Your task to perform on an android device: turn off location history Image 0: 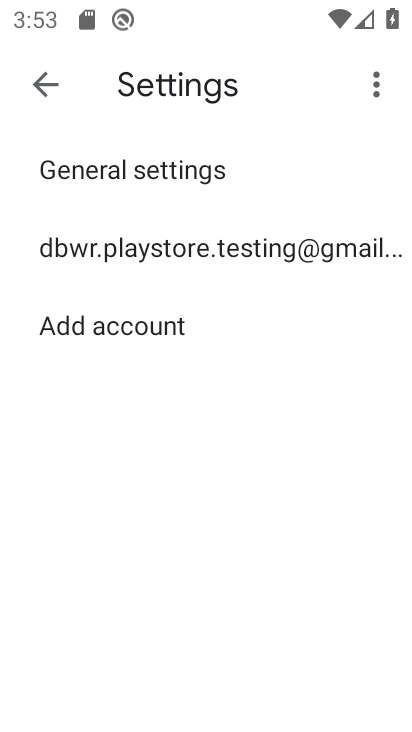
Step 0: press home button
Your task to perform on an android device: turn off location history Image 1: 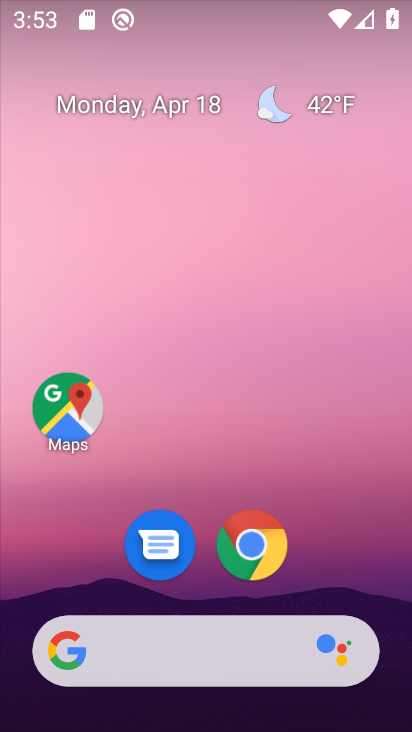
Step 1: drag from (310, 559) to (304, 144)
Your task to perform on an android device: turn off location history Image 2: 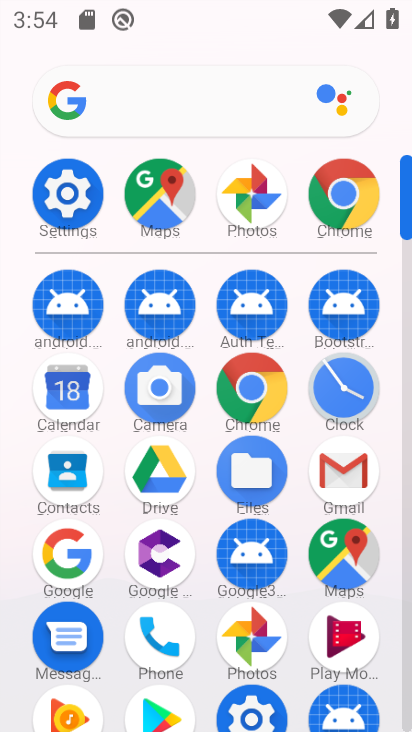
Step 2: click (64, 202)
Your task to perform on an android device: turn off location history Image 3: 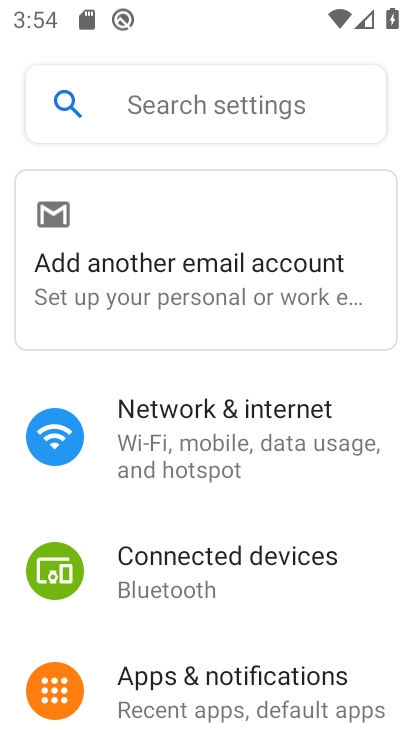
Step 3: drag from (374, 596) to (382, 380)
Your task to perform on an android device: turn off location history Image 4: 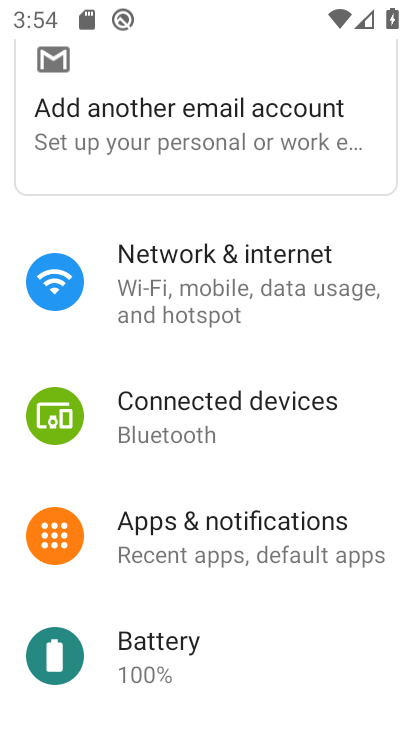
Step 4: drag from (360, 632) to (362, 388)
Your task to perform on an android device: turn off location history Image 5: 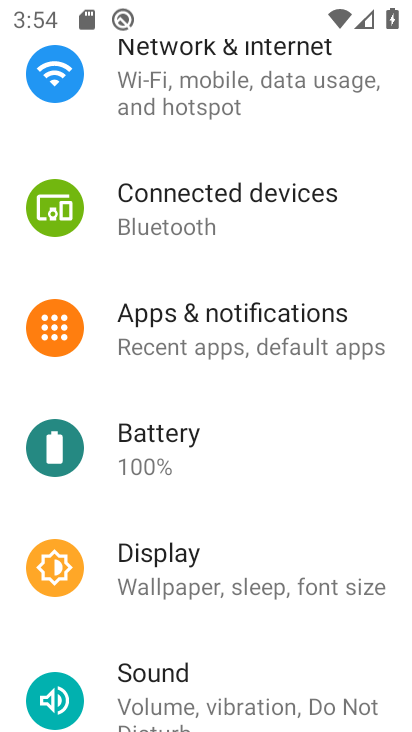
Step 5: drag from (364, 497) to (356, 320)
Your task to perform on an android device: turn off location history Image 6: 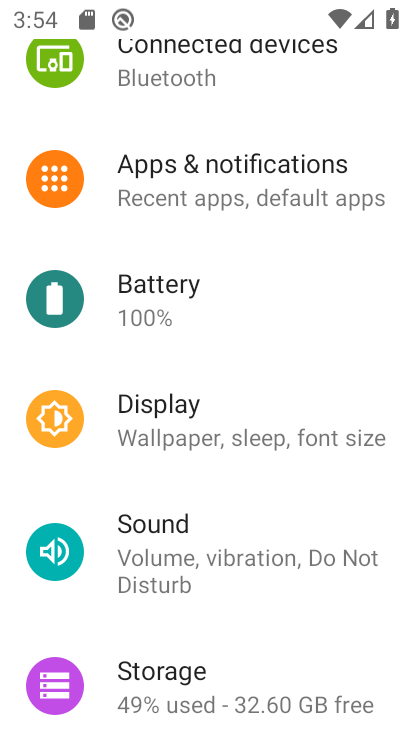
Step 6: drag from (369, 597) to (343, 349)
Your task to perform on an android device: turn off location history Image 7: 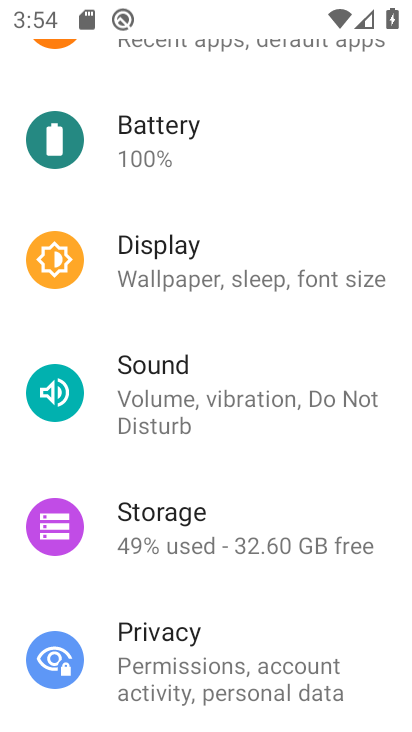
Step 7: drag from (372, 630) to (371, 431)
Your task to perform on an android device: turn off location history Image 8: 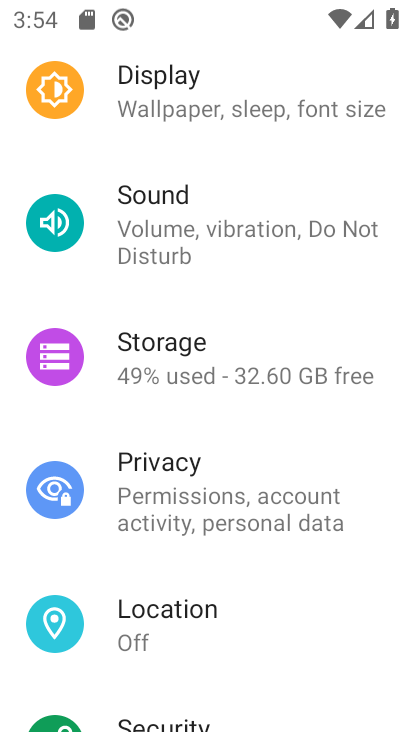
Step 8: drag from (363, 614) to (386, 434)
Your task to perform on an android device: turn off location history Image 9: 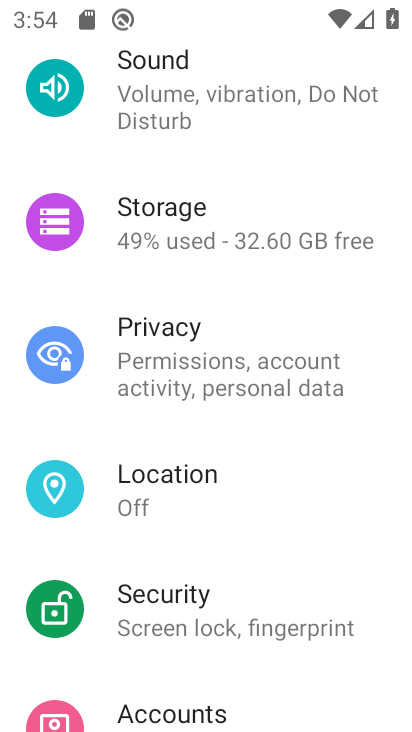
Step 9: click (180, 475)
Your task to perform on an android device: turn off location history Image 10: 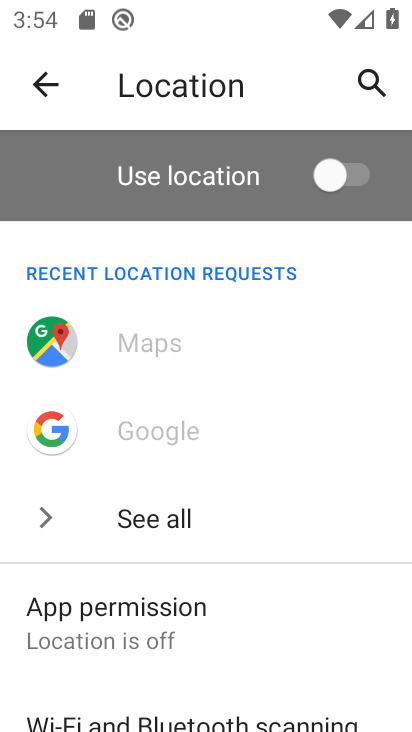
Step 10: drag from (295, 611) to (290, 391)
Your task to perform on an android device: turn off location history Image 11: 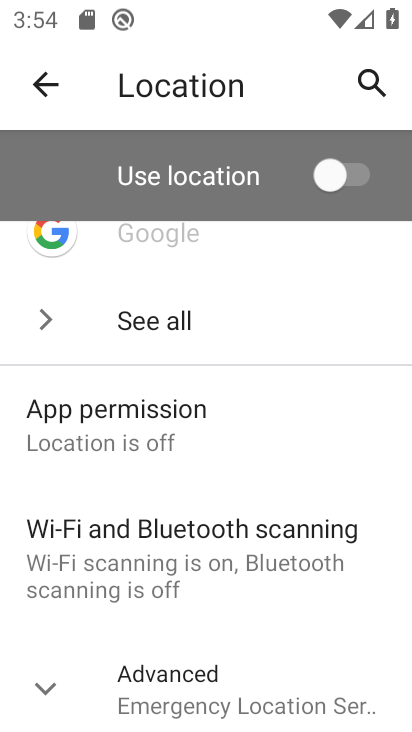
Step 11: drag from (298, 610) to (288, 449)
Your task to perform on an android device: turn off location history Image 12: 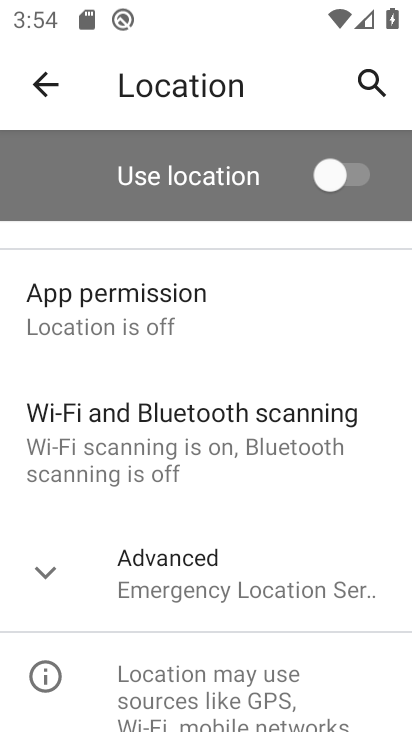
Step 12: drag from (256, 529) to (251, 345)
Your task to perform on an android device: turn off location history Image 13: 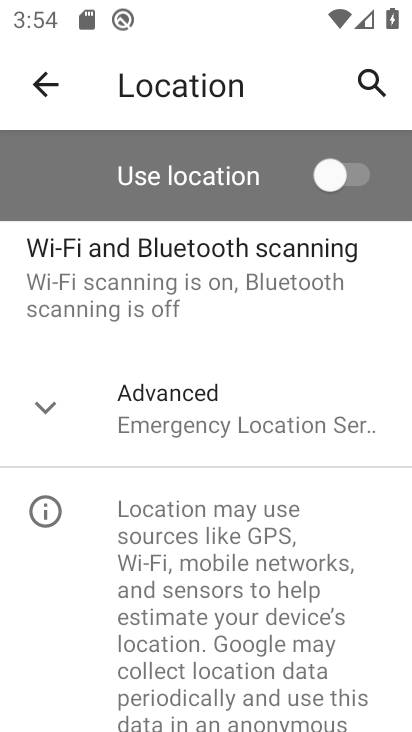
Step 13: click (222, 414)
Your task to perform on an android device: turn off location history Image 14: 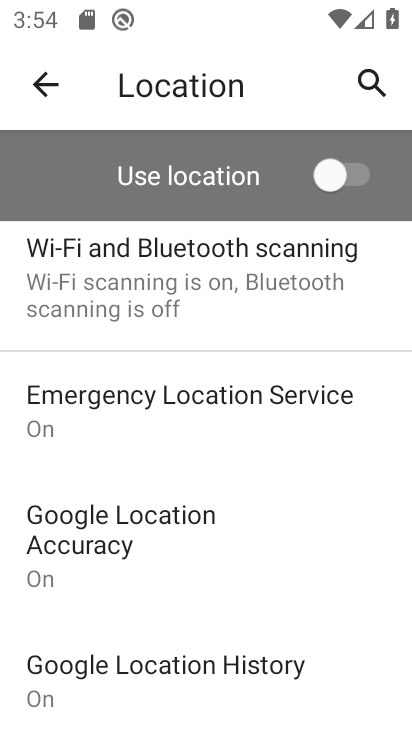
Step 14: drag from (287, 585) to (280, 410)
Your task to perform on an android device: turn off location history Image 15: 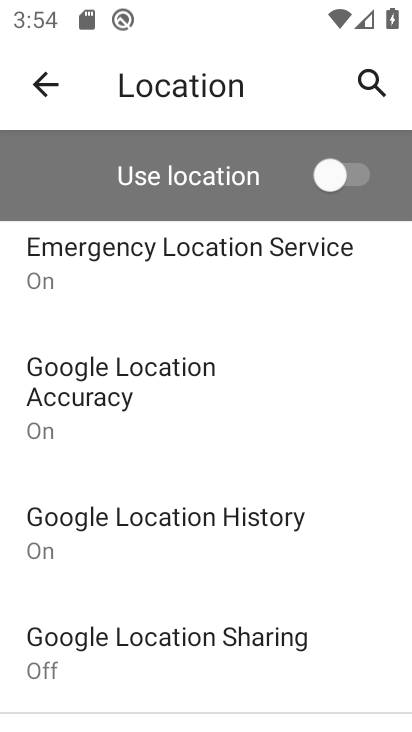
Step 15: drag from (334, 675) to (335, 478)
Your task to perform on an android device: turn off location history Image 16: 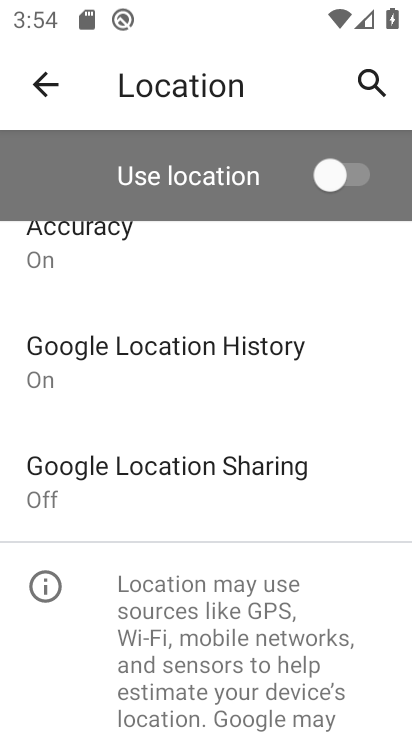
Step 16: click (184, 356)
Your task to perform on an android device: turn off location history Image 17: 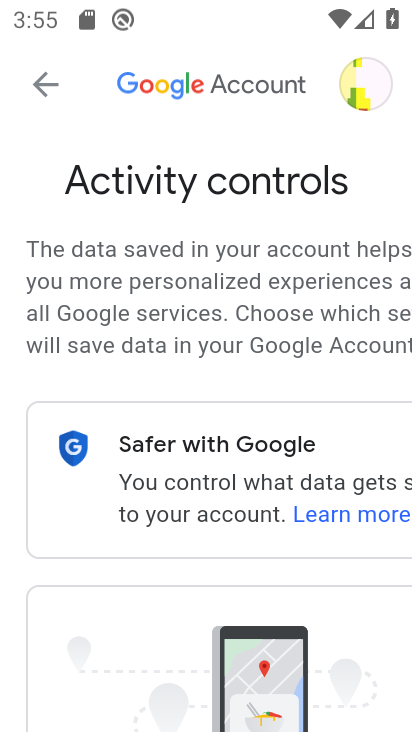
Step 17: drag from (190, 594) to (192, 264)
Your task to perform on an android device: turn off location history Image 18: 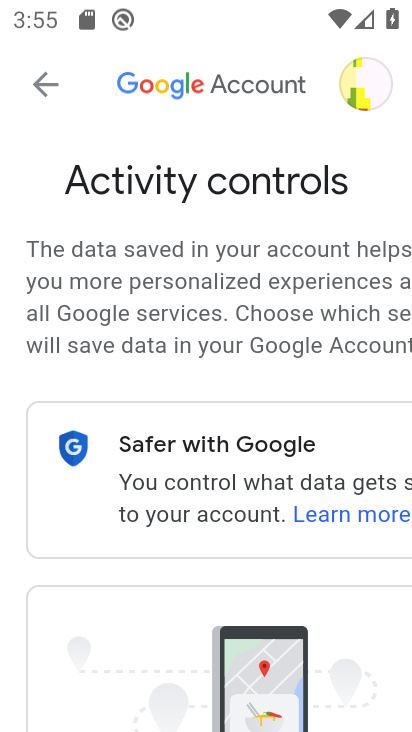
Step 18: drag from (162, 610) to (153, 314)
Your task to perform on an android device: turn off location history Image 19: 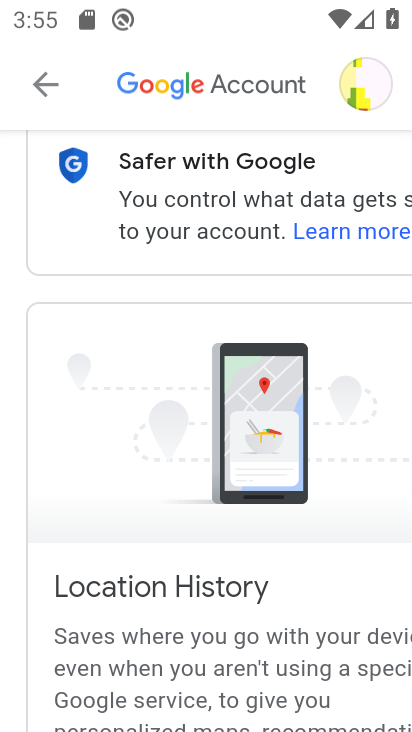
Step 19: drag from (167, 560) to (156, 276)
Your task to perform on an android device: turn off location history Image 20: 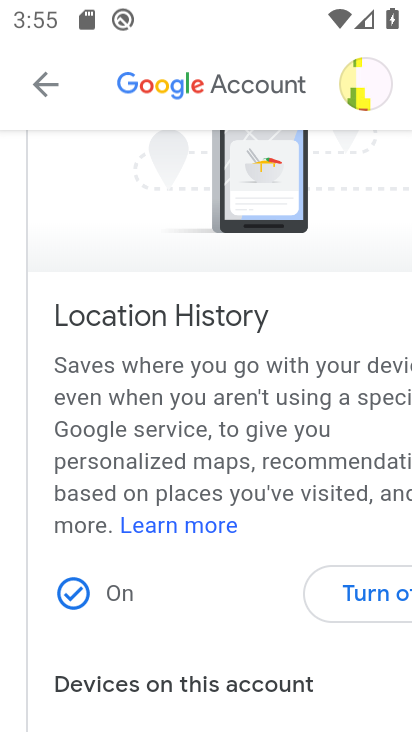
Step 20: click (362, 589)
Your task to perform on an android device: turn off location history Image 21: 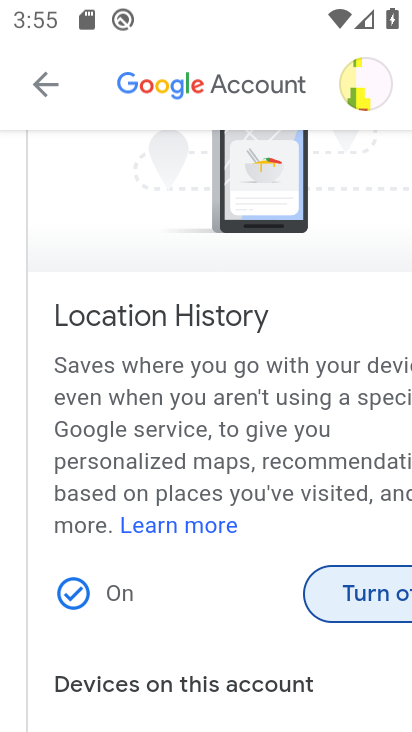
Step 21: click (362, 590)
Your task to perform on an android device: turn off location history Image 22: 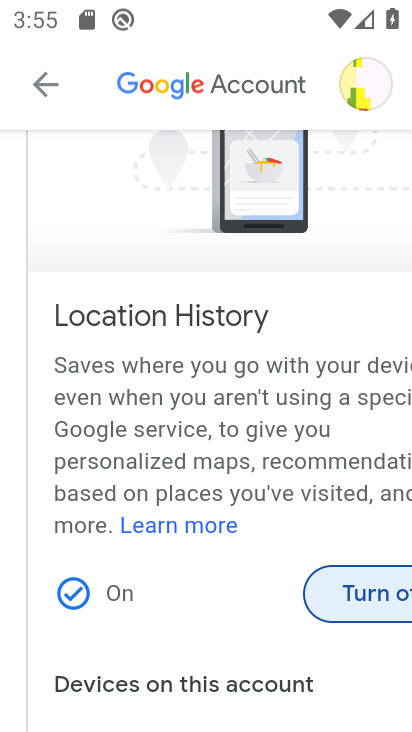
Step 22: click (362, 590)
Your task to perform on an android device: turn off location history Image 23: 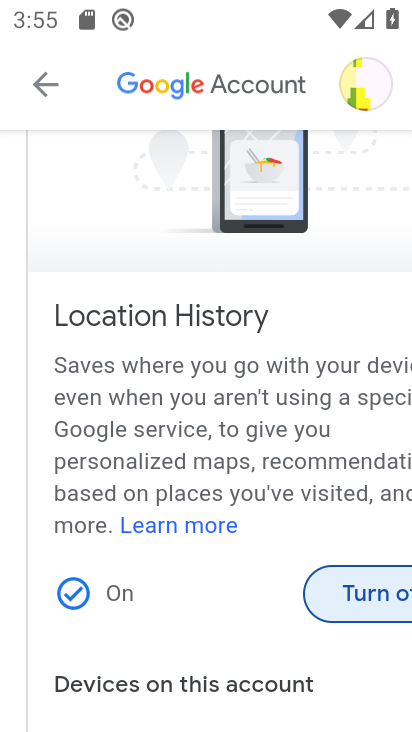
Step 23: click (363, 591)
Your task to perform on an android device: turn off location history Image 24: 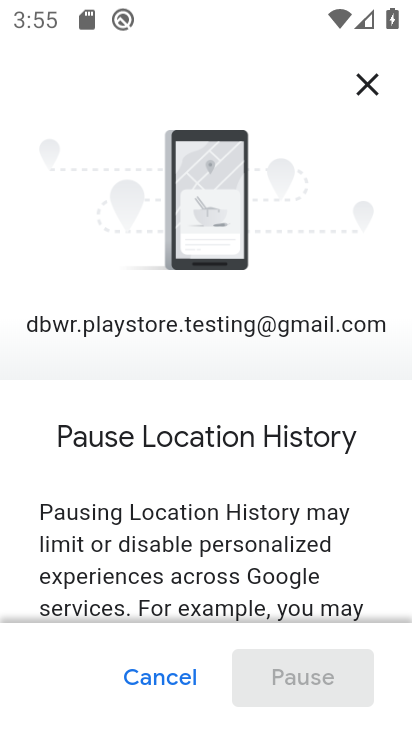
Step 24: drag from (234, 556) to (228, 323)
Your task to perform on an android device: turn off location history Image 25: 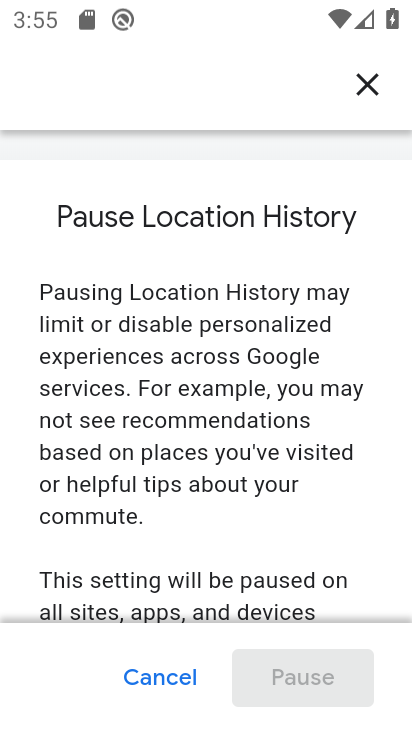
Step 25: drag from (229, 532) to (227, 355)
Your task to perform on an android device: turn off location history Image 26: 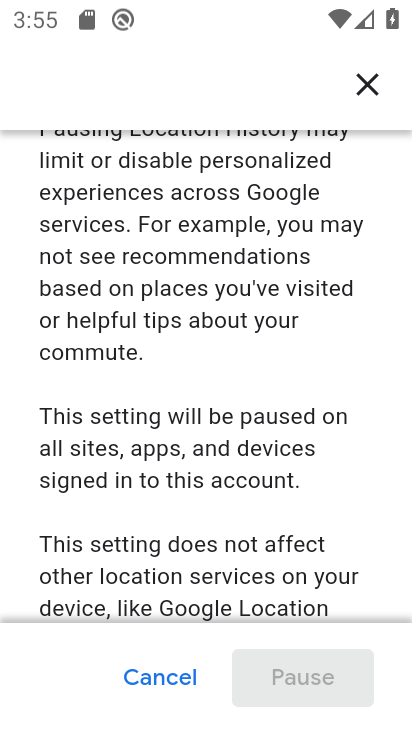
Step 26: drag from (216, 536) to (211, 391)
Your task to perform on an android device: turn off location history Image 27: 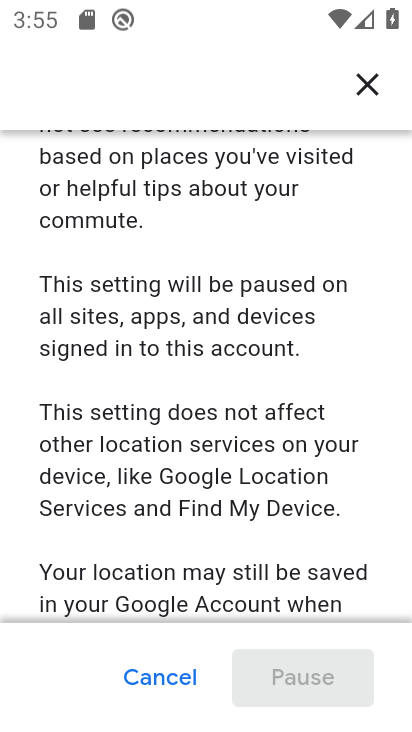
Step 27: drag from (214, 572) to (215, 366)
Your task to perform on an android device: turn off location history Image 28: 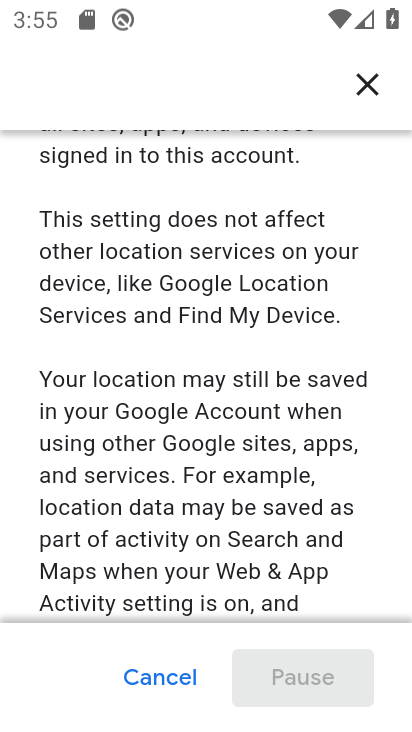
Step 28: drag from (228, 523) to (228, 366)
Your task to perform on an android device: turn off location history Image 29: 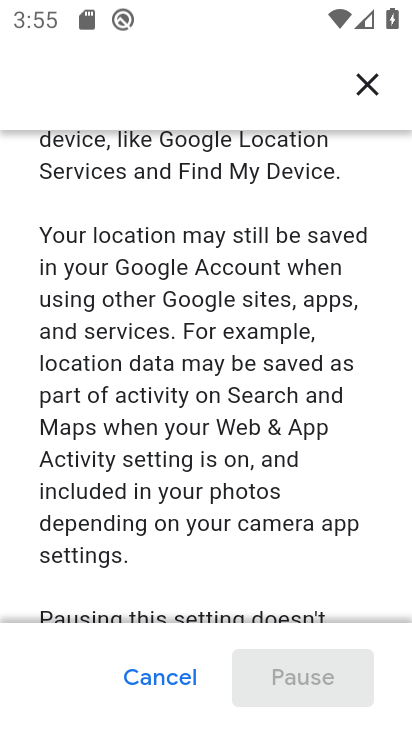
Step 29: drag from (231, 563) to (227, 375)
Your task to perform on an android device: turn off location history Image 30: 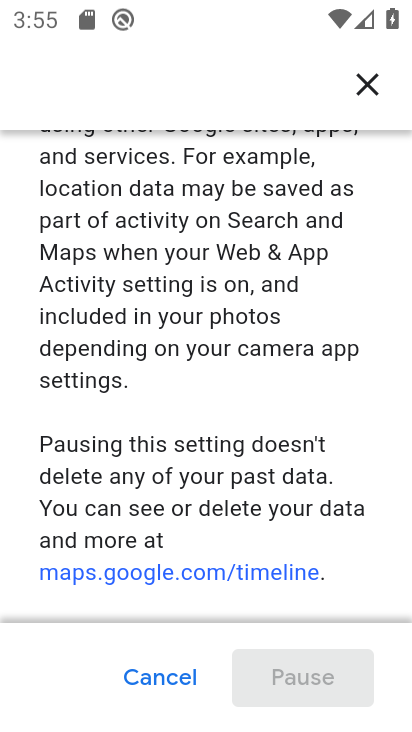
Step 30: drag from (224, 547) to (224, 319)
Your task to perform on an android device: turn off location history Image 31: 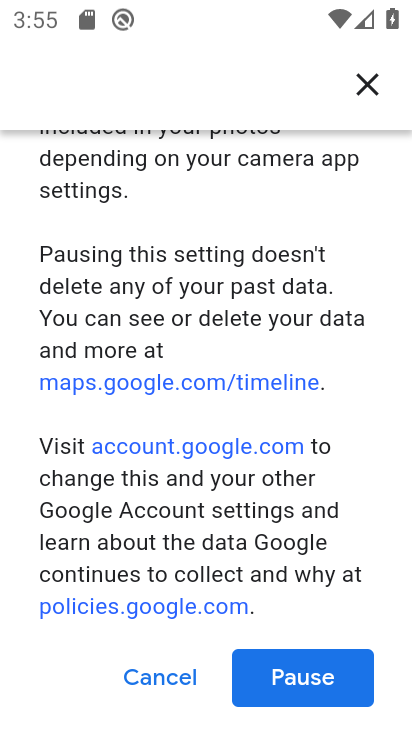
Step 31: click (305, 673)
Your task to perform on an android device: turn off location history Image 32: 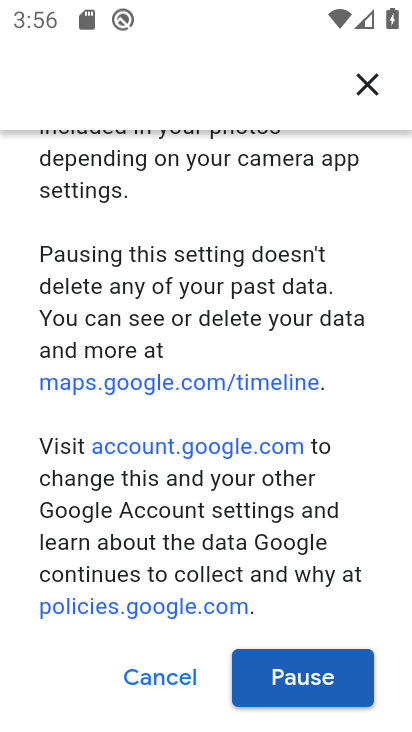
Step 32: click (307, 693)
Your task to perform on an android device: turn off location history Image 33: 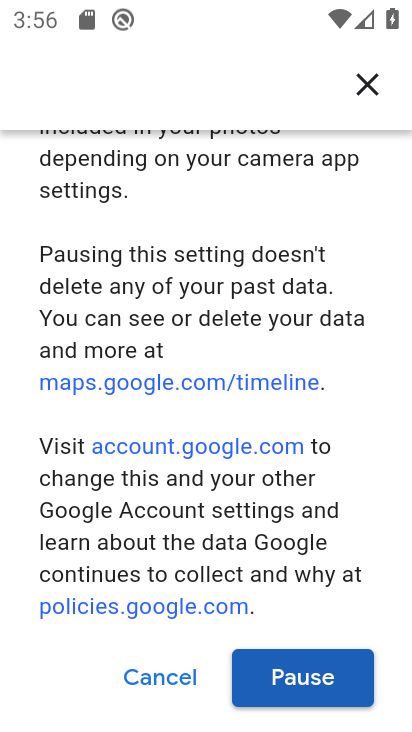
Step 33: click (306, 669)
Your task to perform on an android device: turn off location history Image 34: 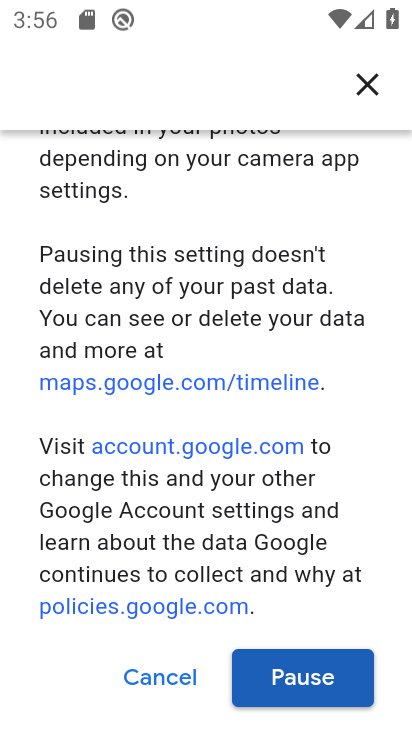
Step 34: click (307, 676)
Your task to perform on an android device: turn off location history Image 35: 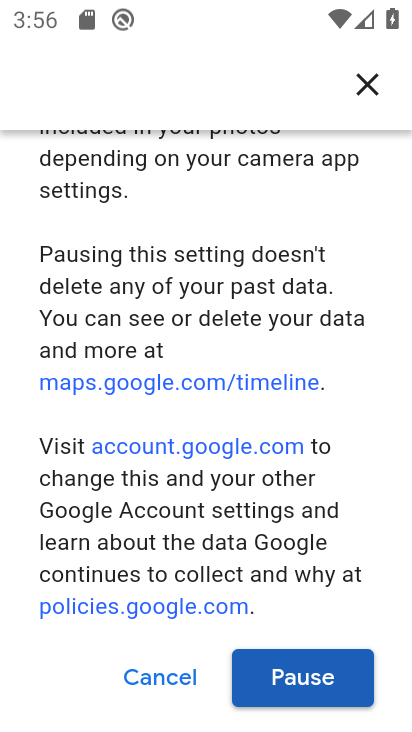
Step 35: click (306, 675)
Your task to perform on an android device: turn off location history Image 36: 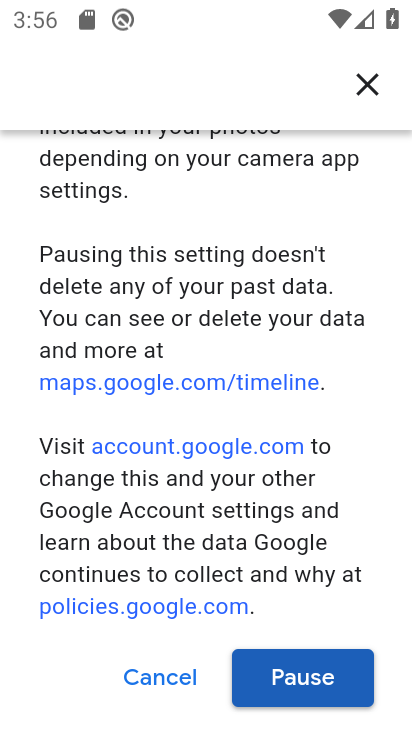
Step 36: click (307, 688)
Your task to perform on an android device: turn off location history Image 37: 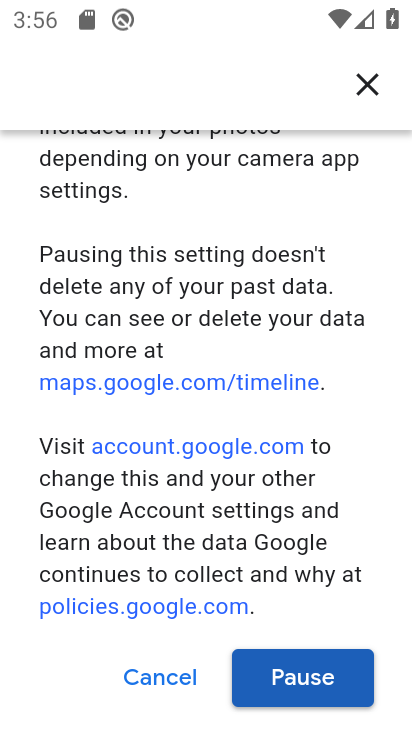
Step 37: drag from (294, 554) to (295, 232)
Your task to perform on an android device: turn off location history Image 38: 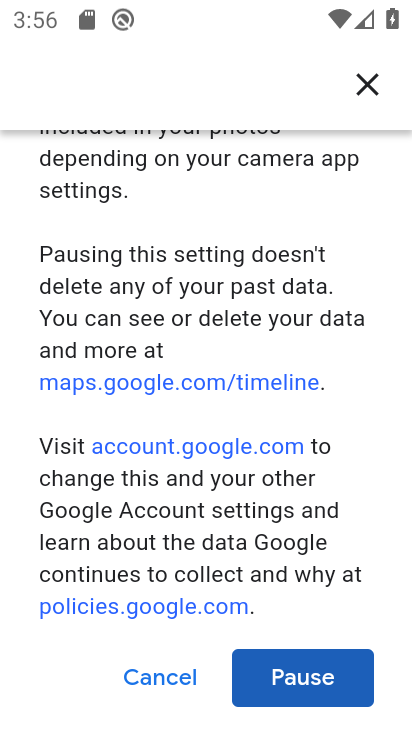
Step 38: click (287, 666)
Your task to perform on an android device: turn off location history Image 39: 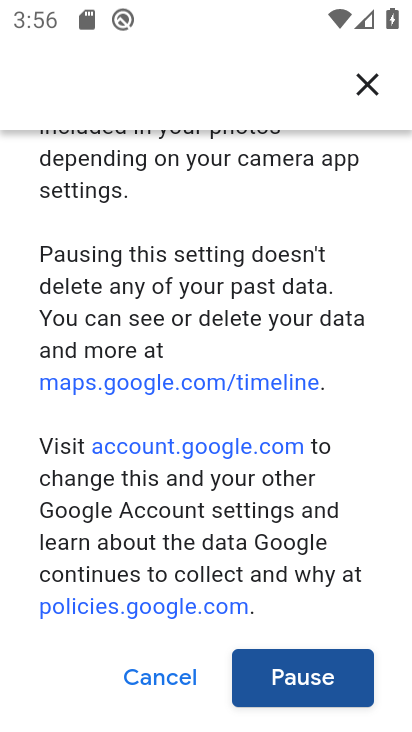
Step 39: click (307, 688)
Your task to perform on an android device: turn off location history Image 40: 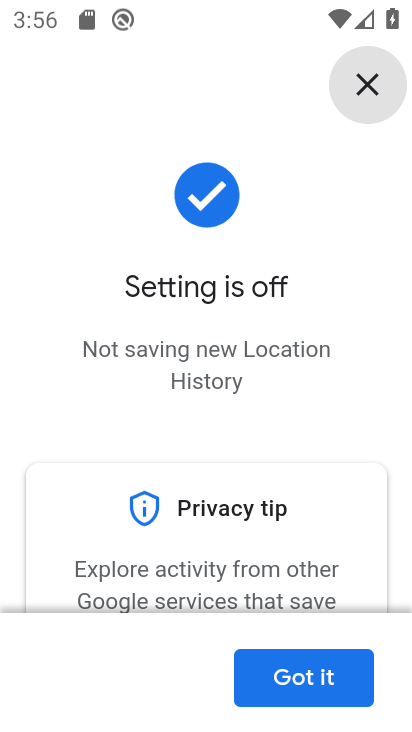
Step 40: task complete